Your task to perform on an android device: Open notification settings Image 0: 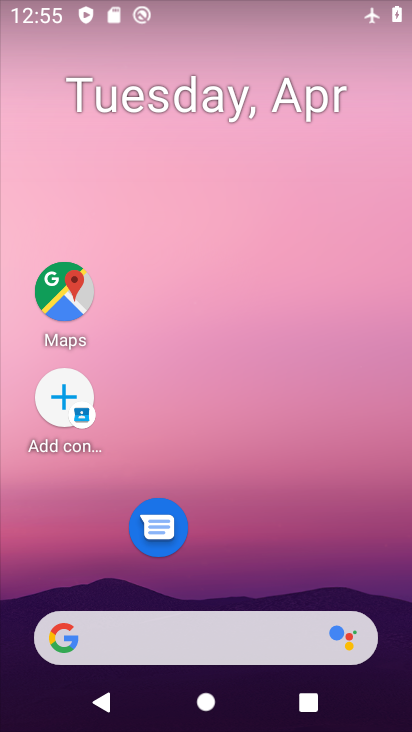
Step 0: drag from (249, 577) to (289, 100)
Your task to perform on an android device: Open notification settings Image 1: 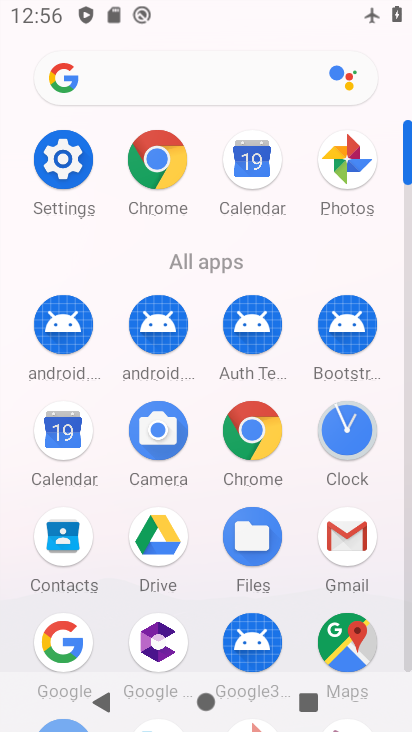
Step 1: click (68, 157)
Your task to perform on an android device: Open notification settings Image 2: 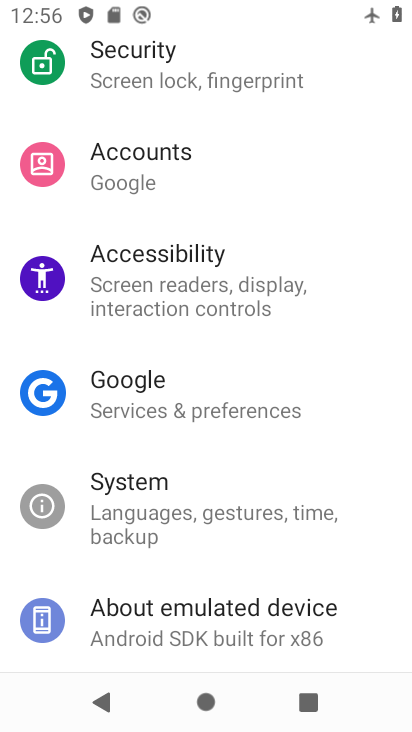
Step 2: drag from (250, 201) to (220, 337)
Your task to perform on an android device: Open notification settings Image 3: 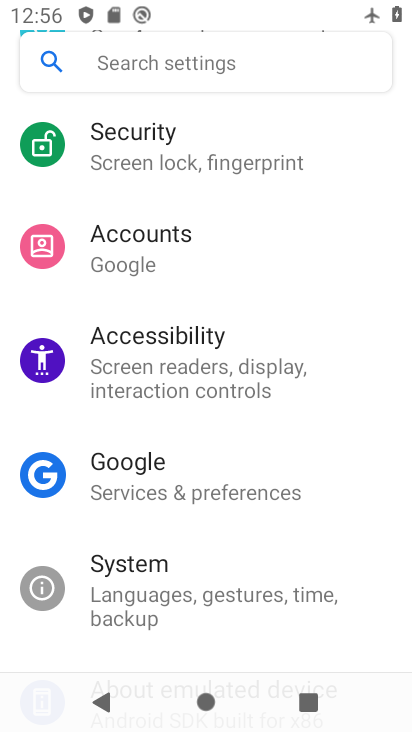
Step 3: drag from (278, 135) to (213, 351)
Your task to perform on an android device: Open notification settings Image 4: 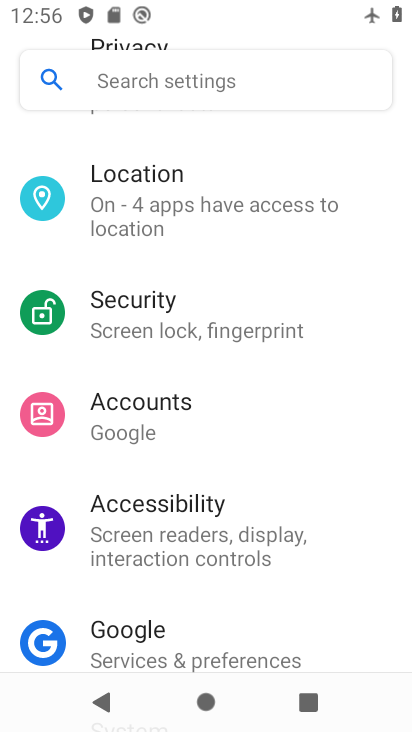
Step 4: drag from (214, 267) to (224, 385)
Your task to perform on an android device: Open notification settings Image 5: 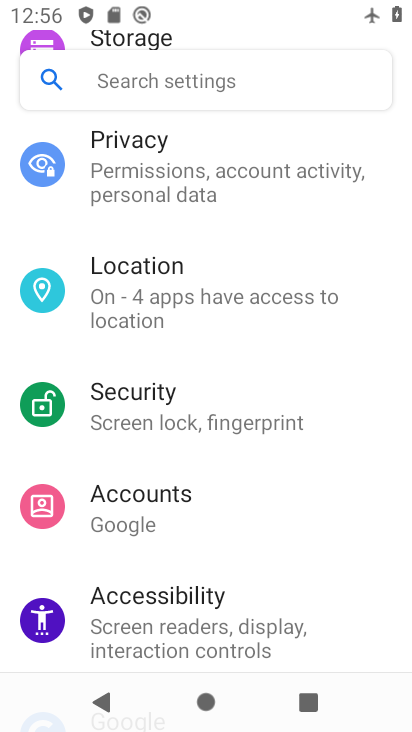
Step 5: drag from (204, 237) to (227, 407)
Your task to perform on an android device: Open notification settings Image 6: 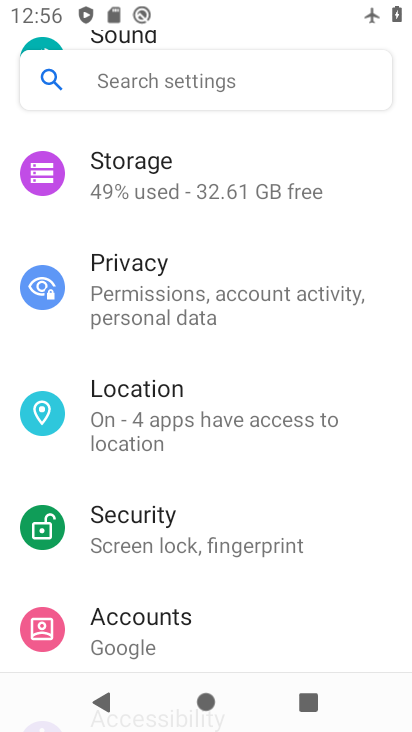
Step 6: drag from (234, 250) to (229, 392)
Your task to perform on an android device: Open notification settings Image 7: 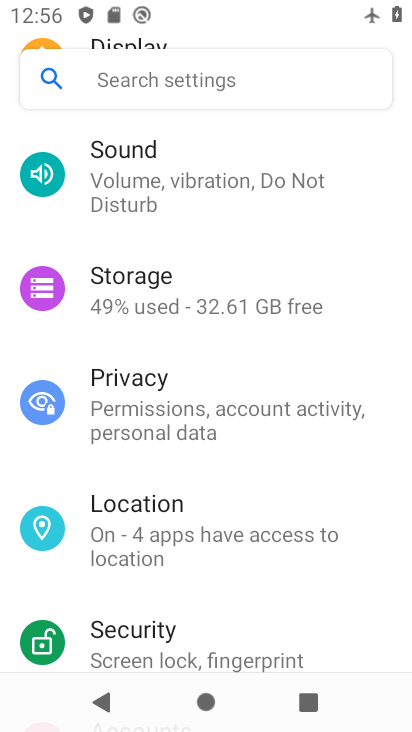
Step 7: drag from (208, 254) to (228, 406)
Your task to perform on an android device: Open notification settings Image 8: 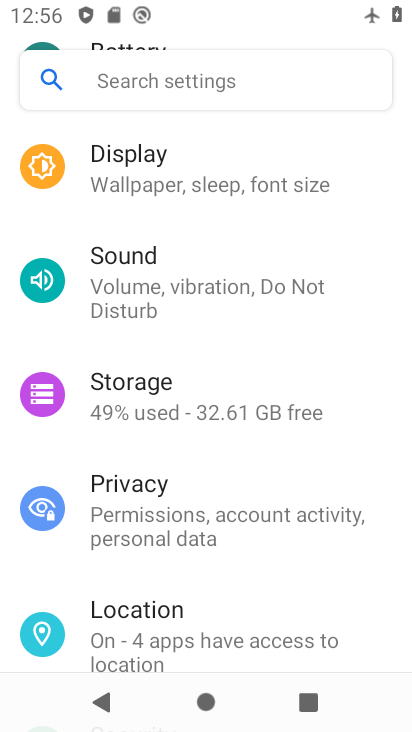
Step 8: drag from (227, 231) to (234, 366)
Your task to perform on an android device: Open notification settings Image 9: 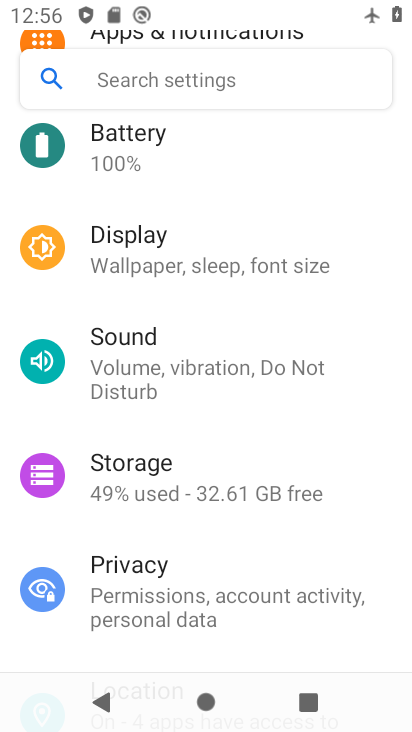
Step 9: drag from (188, 205) to (215, 339)
Your task to perform on an android device: Open notification settings Image 10: 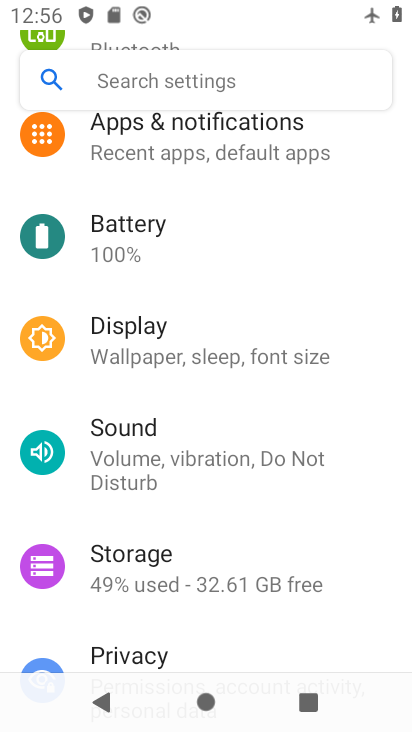
Step 10: drag from (208, 251) to (225, 344)
Your task to perform on an android device: Open notification settings Image 11: 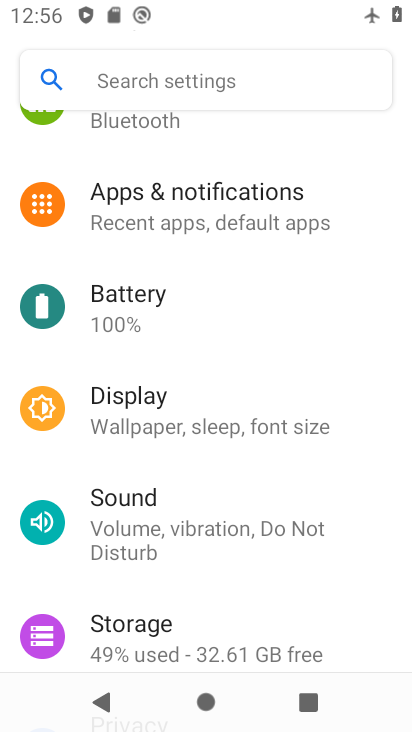
Step 11: click (217, 199)
Your task to perform on an android device: Open notification settings Image 12: 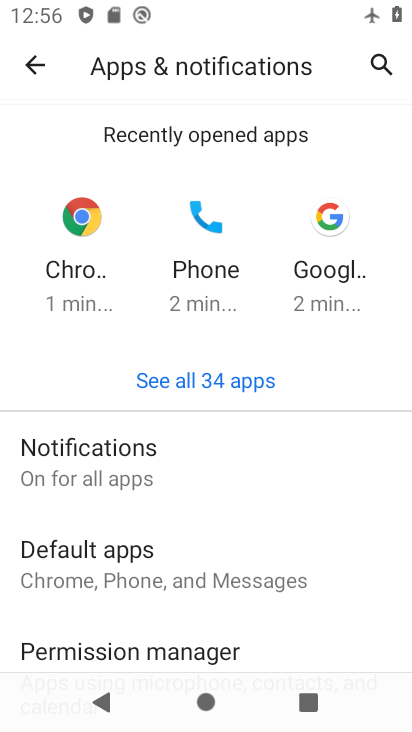
Step 12: task complete